Your task to perform on an android device: Open Google Maps and go to "Timeline" Image 0: 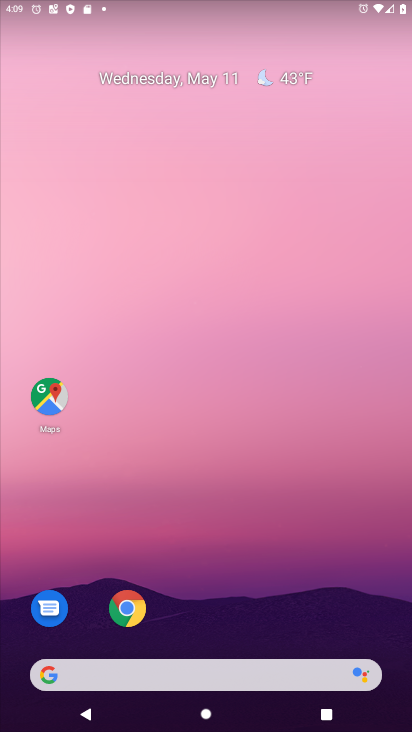
Step 0: drag from (237, 727) to (241, 123)
Your task to perform on an android device: Open Google Maps and go to "Timeline" Image 1: 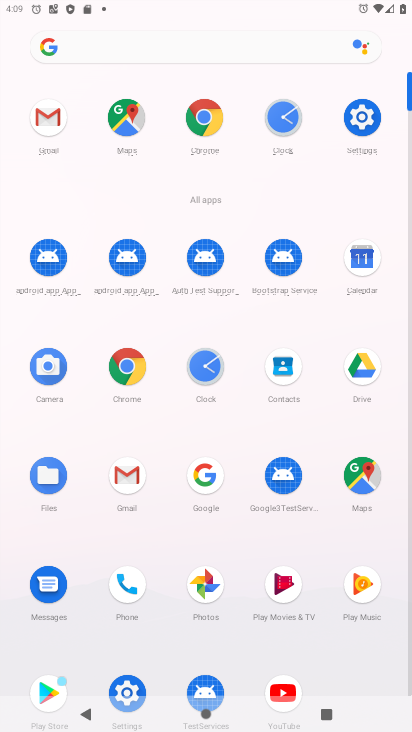
Step 1: click (364, 481)
Your task to perform on an android device: Open Google Maps and go to "Timeline" Image 2: 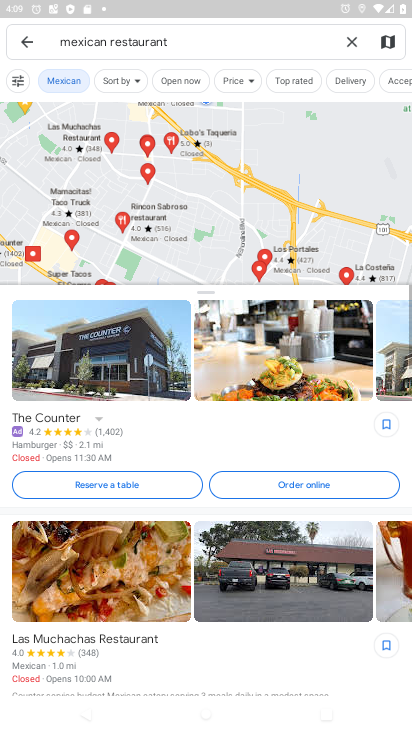
Step 2: click (23, 42)
Your task to perform on an android device: Open Google Maps and go to "Timeline" Image 3: 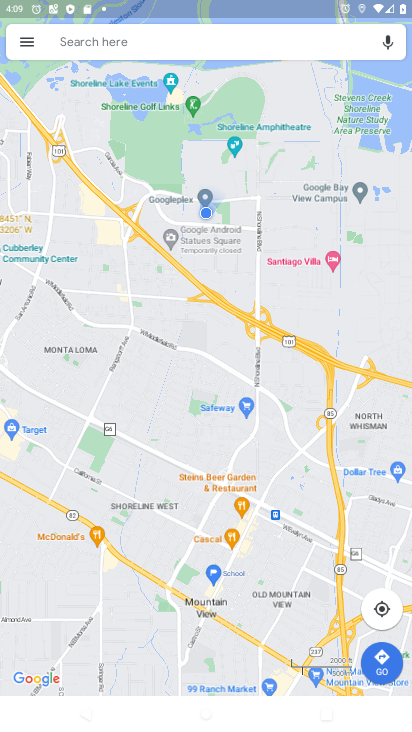
Step 3: click (27, 47)
Your task to perform on an android device: Open Google Maps and go to "Timeline" Image 4: 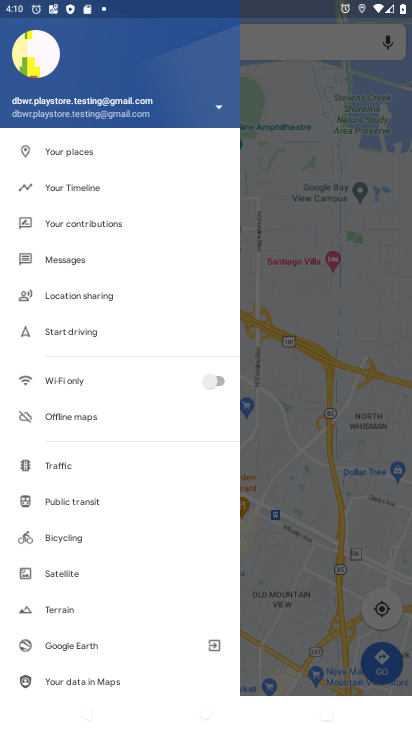
Step 4: click (74, 182)
Your task to perform on an android device: Open Google Maps and go to "Timeline" Image 5: 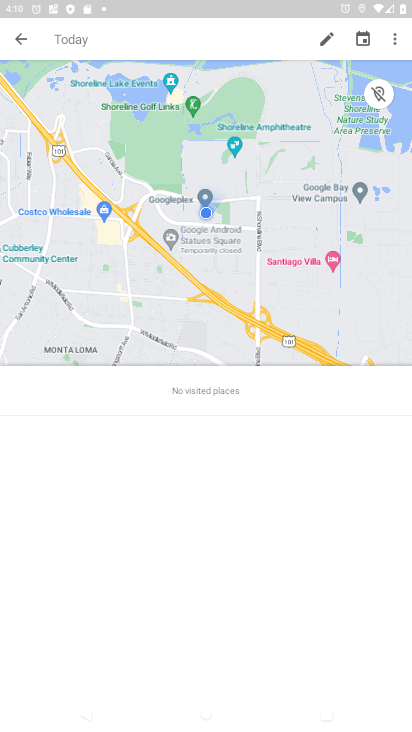
Step 5: task complete